Your task to perform on an android device: toggle improve location accuracy Image 0: 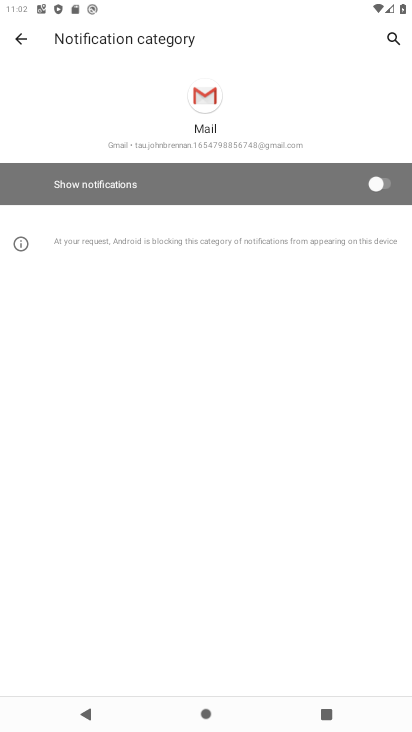
Step 0: press home button
Your task to perform on an android device: toggle improve location accuracy Image 1: 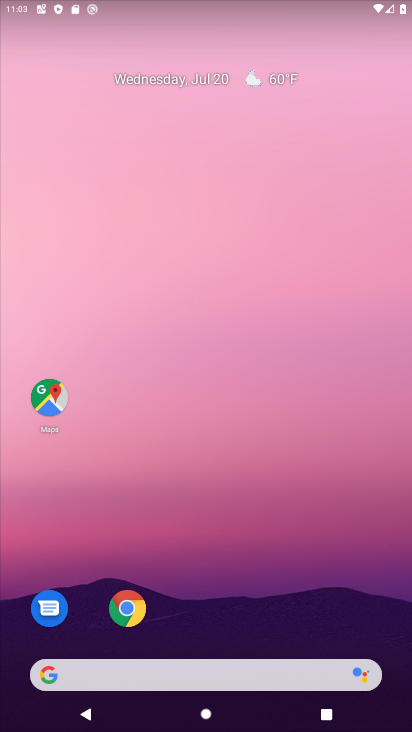
Step 1: drag from (277, 605) to (218, 21)
Your task to perform on an android device: toggle improve location accuracy Image 2: 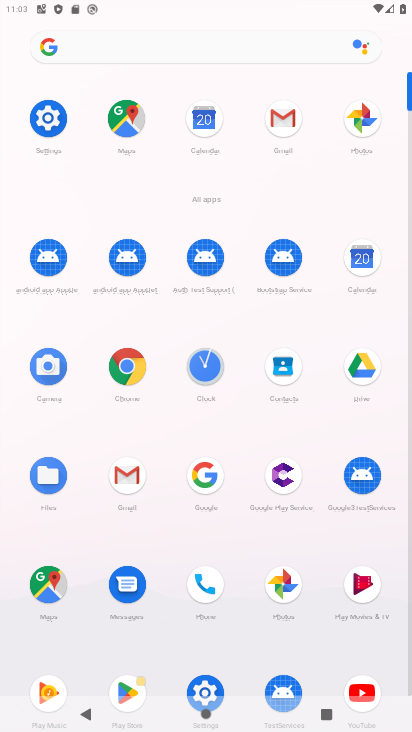
Step 2: click (51, 118)
Your task to perform on an android device: toggle improve location accuracy Image 3: 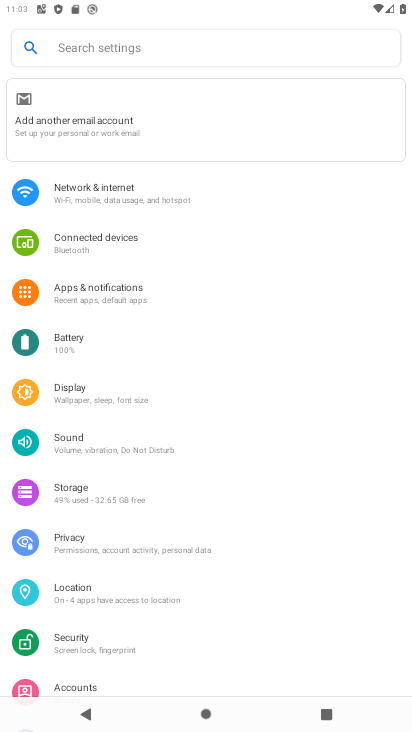
Step 3: click (75, 588)
Your task to perform on an android device: toggle improve location accuracy Image 4: 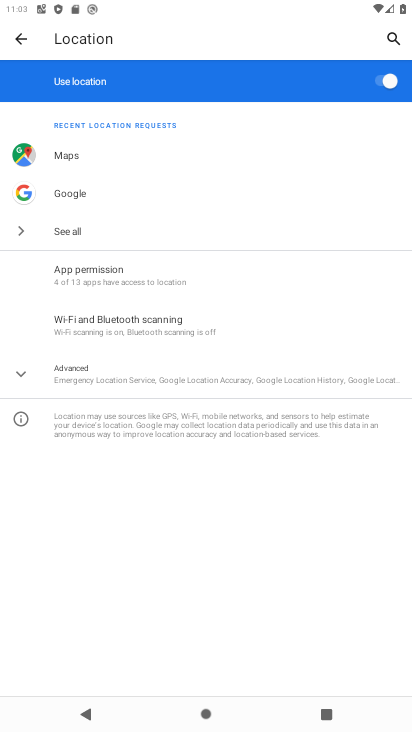
Step 4: click (245, 369)
Your task to perform on an android device: toggle improve location accuracy Image 5: 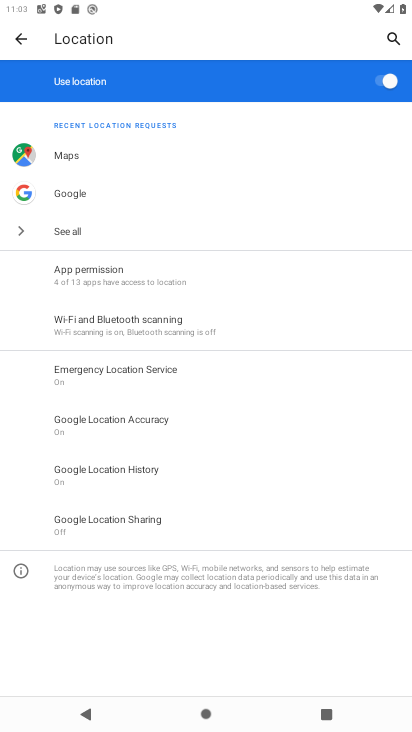
Step 5: click (148, 432)
Your task to perform on an android device: toggle improve location accuracy Image 6: 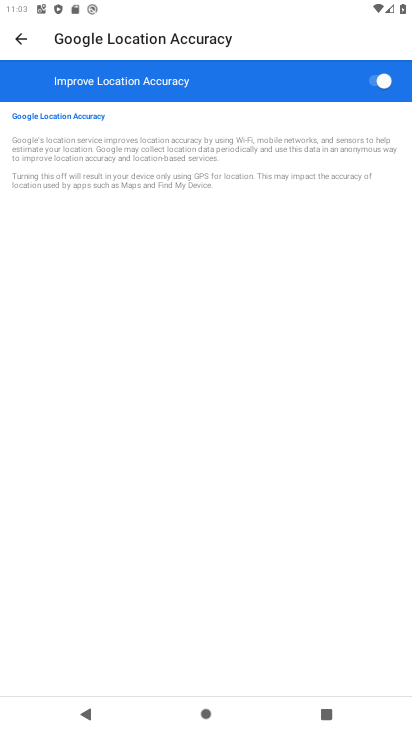
Step 6: click (387, 69)
Your task to perform on an android device: toggle improve location accuracy Image 7: 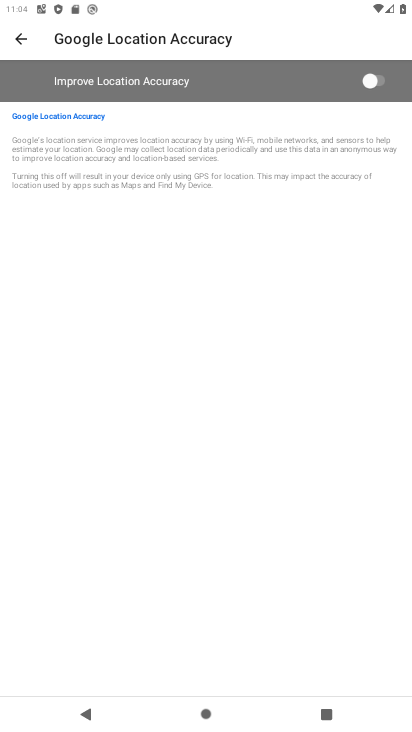
Step 7: task complete